Your task to perform on an android device: Open maps Image 0: 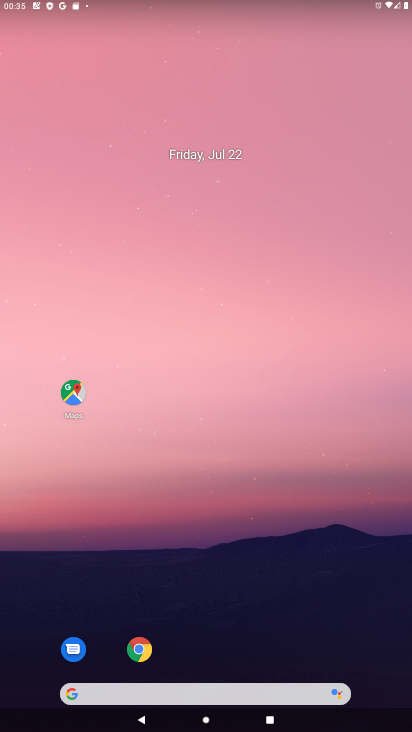
Step 0: drag from (292, 589) to (235, 59)
Your task to perform on an android device: Open maps Image 1: 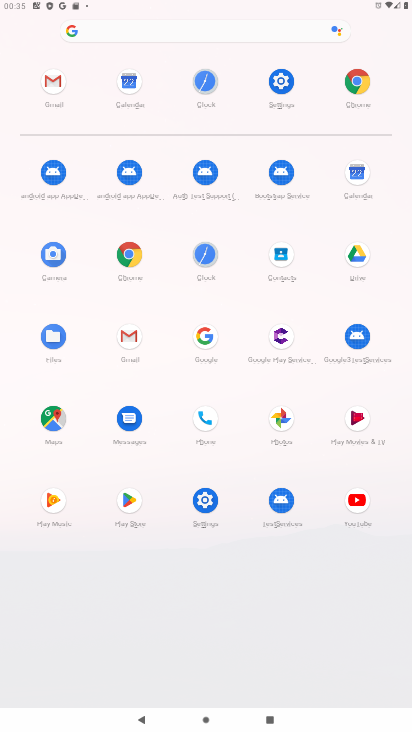
Step 1: click (60, 410)
Your task to perform on an android device: Open maps Image 2: 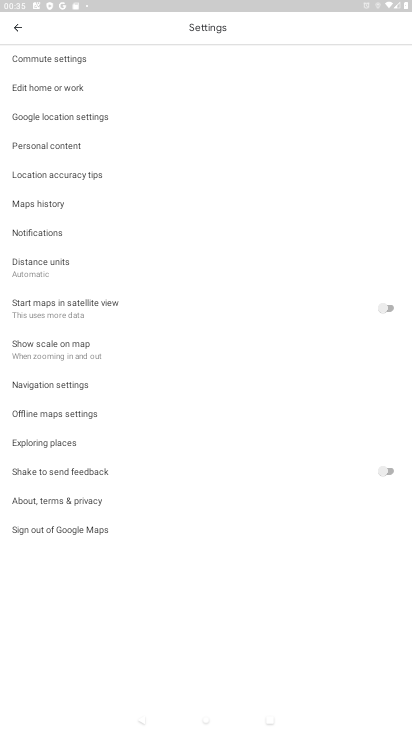
Step 2: task complete